Your task to perform on an android device: toggle priority inbox in the gmail app Image 0: 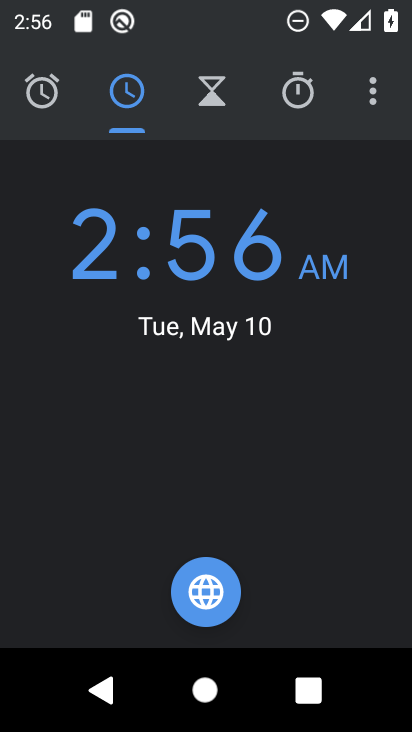
Step 0: press home button
Your task to perform on an android device: toggle priority inbox in the gmail app Image 1: 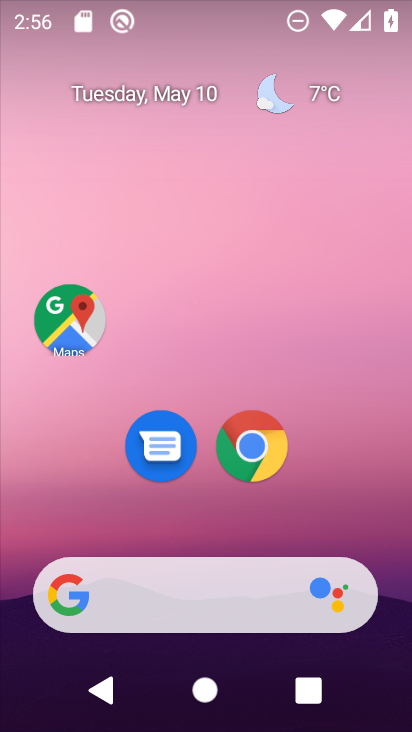
Step 1: drag from (322, 501) to (252, 70)
Your task to perform on an android device: toggle priority inbox in the gmail app Image 2: 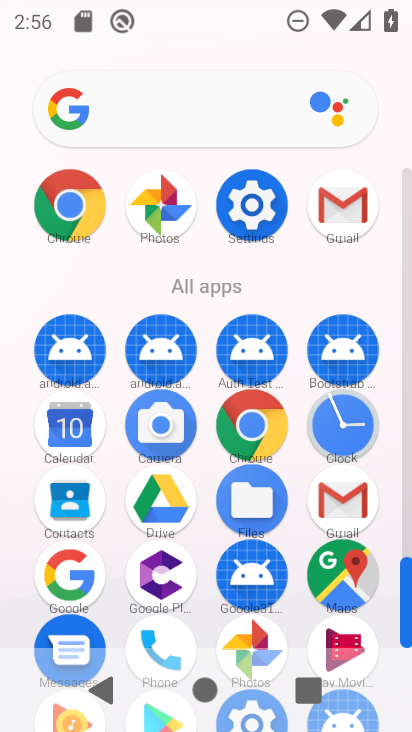
Step 2: click (343, 485)
Your task to perform on an android device: toggle priority inbox in the gmail app Image 3: 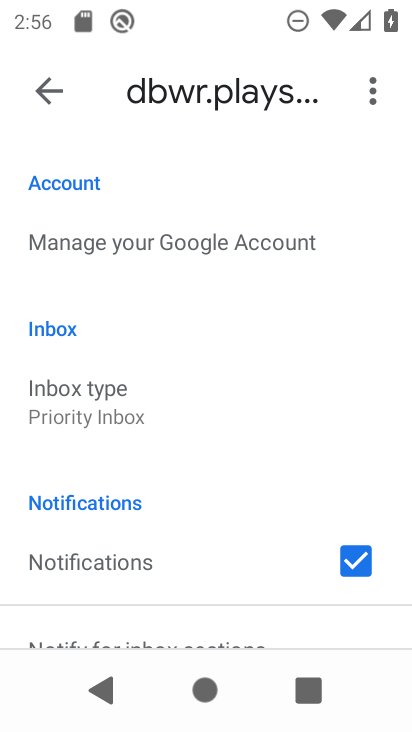
Step 3: click (150, 397)
Your task to perform on an android device: toggle priority inbox in the gmail app Image 4: 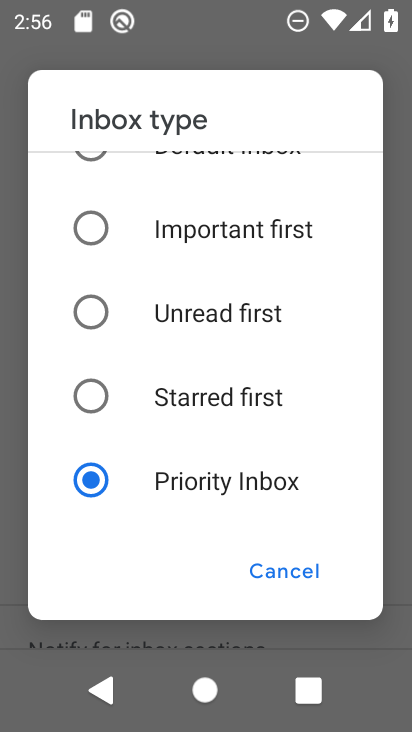
Step 4: click (198, 254)
Your task to perform on an android device: toggle priority inbox in the gmail app Image 5: 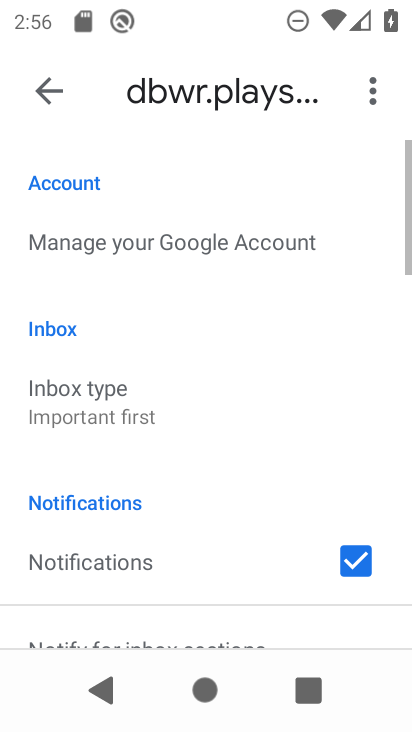
Step 5: task complete